Your task to perform on an android device: Open network settings Image 0: 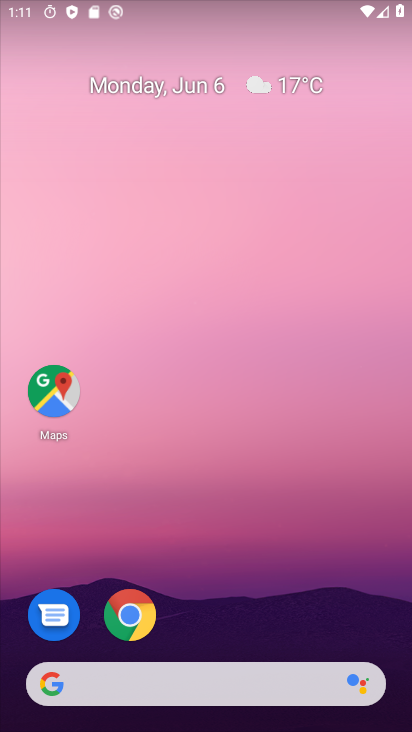
Step 0: drag from (190, 625) to (248, 262)
Your task to perform on an android device: Open network settings Image 1: 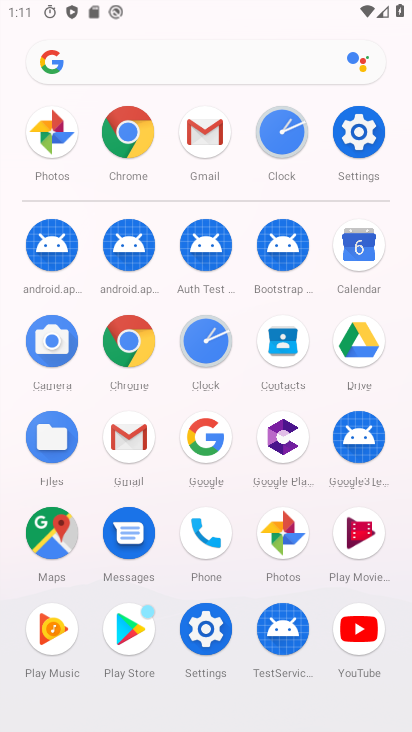
Step 1: click (352, 141)
Your task to perform on an android device: Open network settings Image 2: 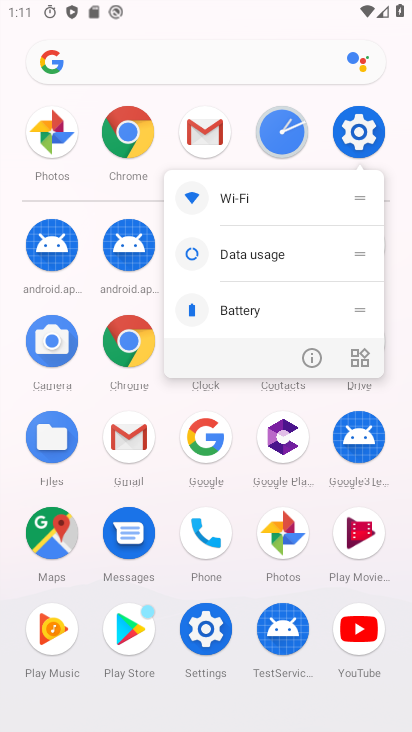
Step 2: click (303, 361)
Your task to perform on an android device: Open network settings Image 3: 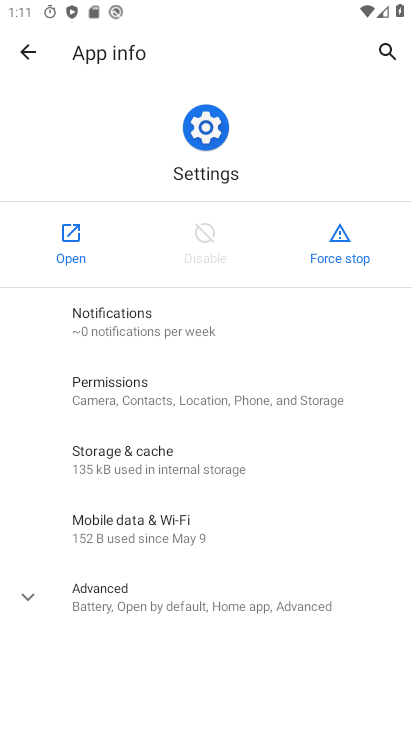
Step 3: click (68, 246)
Your task to perform on an android device: Open network settings Image 4: 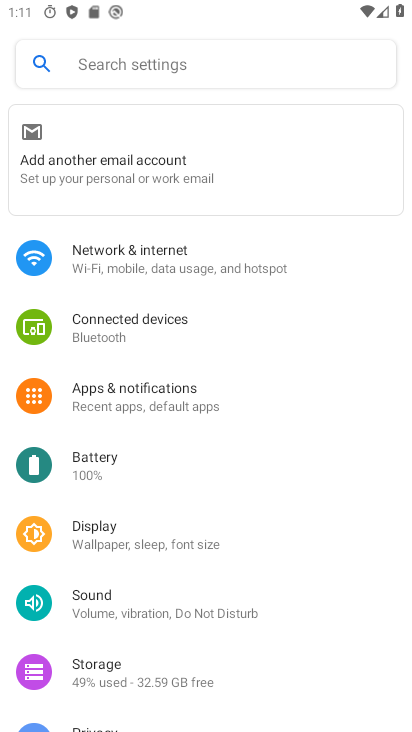
Step 4: click (170, 252)
Your task to perform on an android device: Open network settings Image 5: 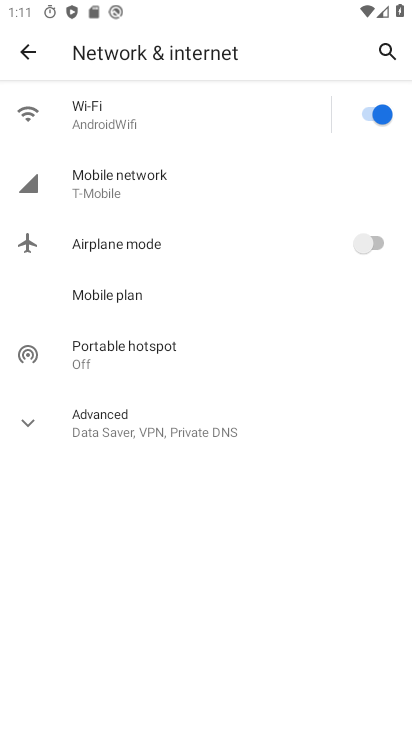
Step 5: task complete